Your task to perform on an android device: Open location settings Image 0: 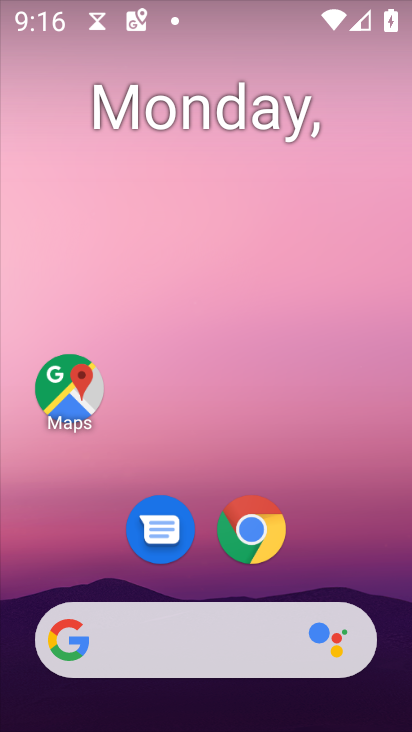
Step 0: drag from (183, 313) to (151, 6)
Your task to perform on an android device: Open location settings Image 1: 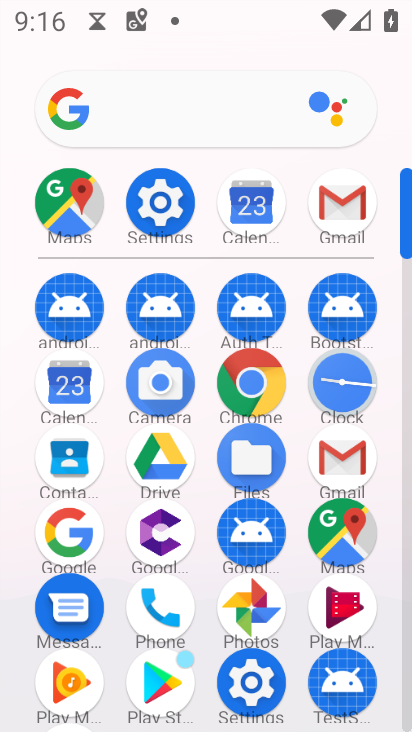
Step 1: click (157, 218)
Your task to perform on an android device: Open location settings Image 2: 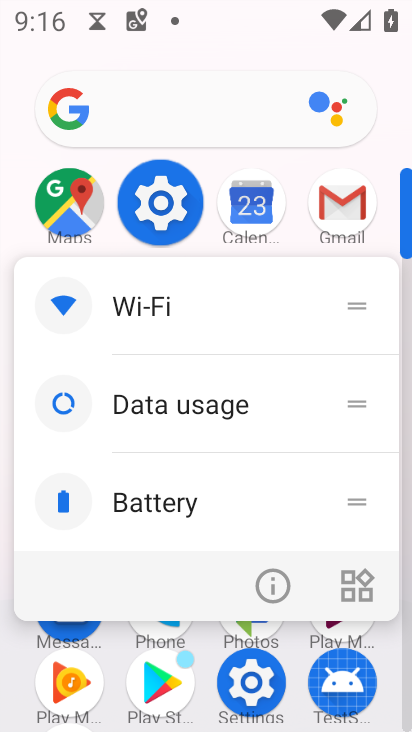
Step 2: click (158, 217)
Your task to perform on an android device: Open location settings Image 3: 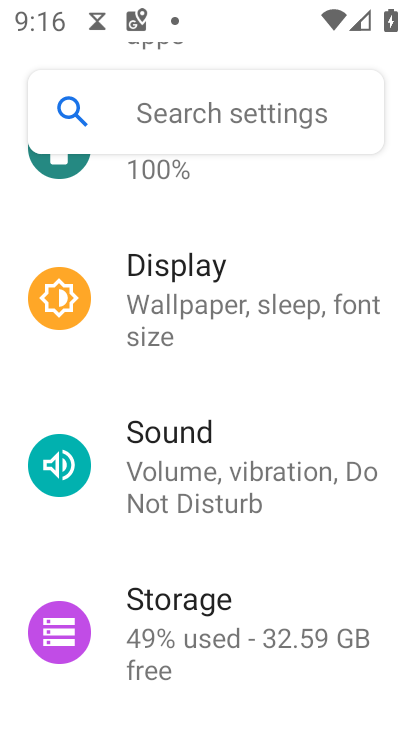
Step 3: drag from (158, 276) to (158, 518)
Your task to perform on an android device: Open location settings Image 4: 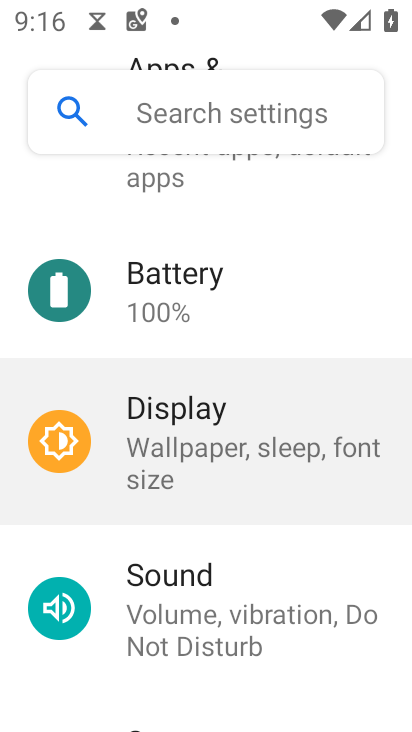
Step 4: drag from (147, 313) to (172, 685)
Your task to perform on an android device: Open location settings Image 5: 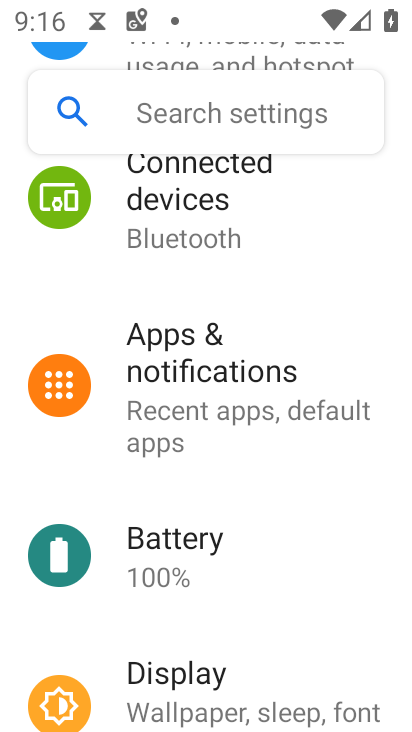
Step 5: drag from (192, 543) to (131, 230)
Your task to perform on an android device: Open location settings Image 6: 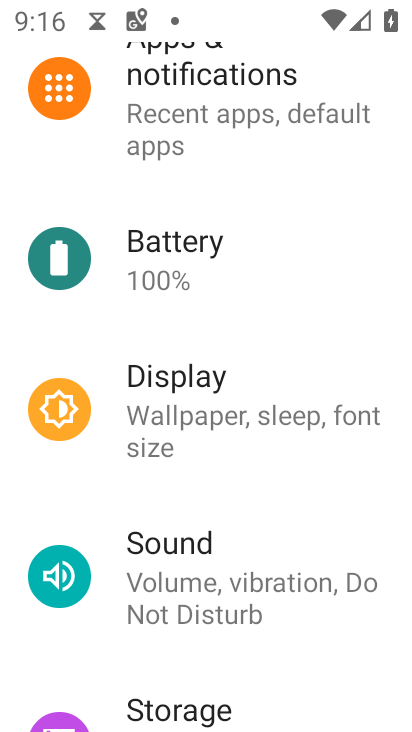
Step 6: click (178, 192)
Your task to perform on an android device: Open location settings Image 7: 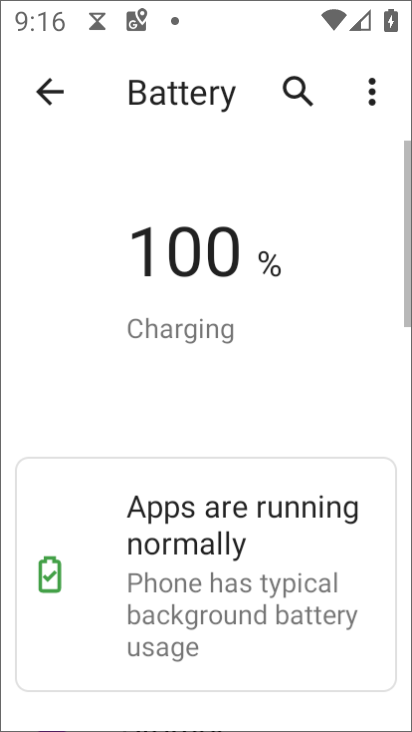
Step 7: drag from (226, 607) to (229, 225)
Your task to perform on an android device: Open location settings Image 8: 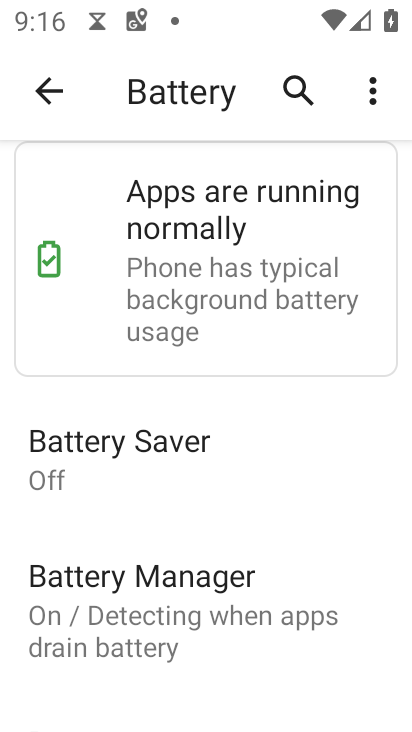
Step 8: click (35, 92)
Your task to perform on an android device: Open location settings Image 9: 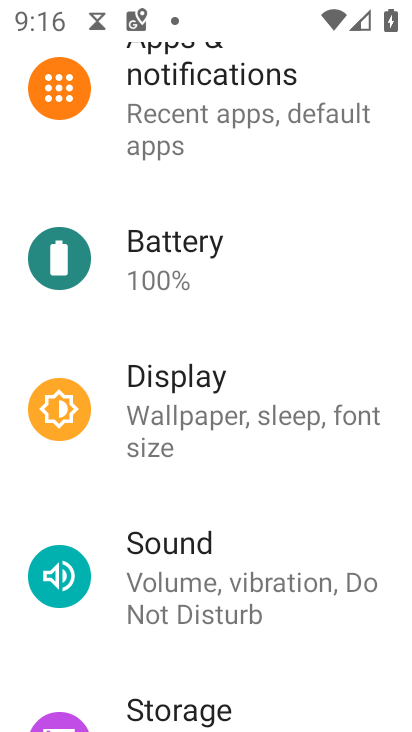
Step 9: drag from (240, 587) to (237, 169)
Your task to perform on an android device: Open location settings Image 10: 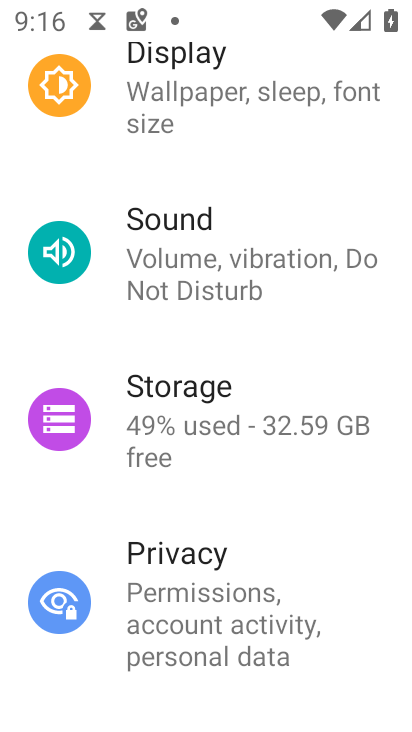
Step 10: drag from (243, 499) to (236, 271)
Your task to perform on an android device: Open location settings Image 11: 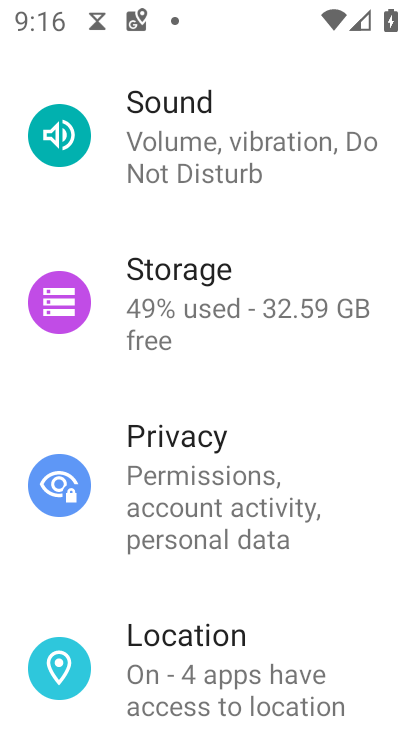
Step 11: click (203, 698)
Your task to perform on an android device: Open location settings Image 12: 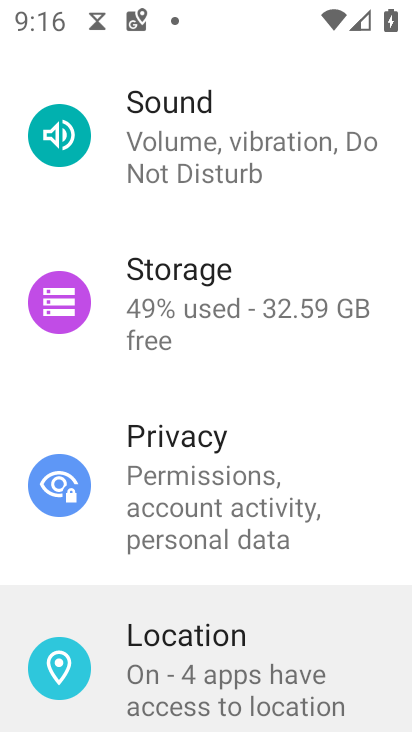
Step 12: click (203, 696)
Your task to perform on an android device: Open location settings Image 13: 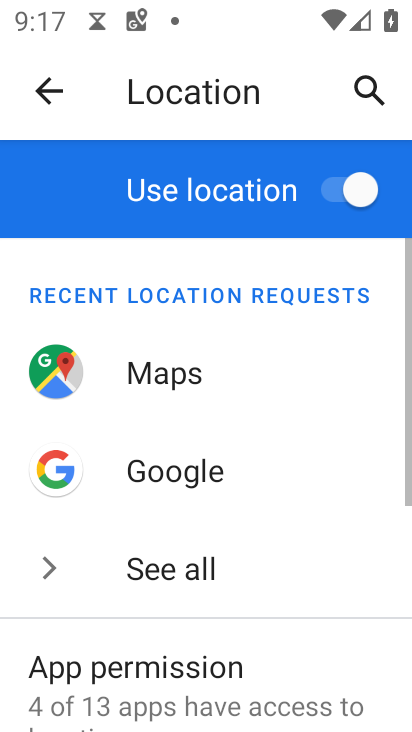
Step 13: task complete